Your task to perform on an android device: Go to Maps Image 0: 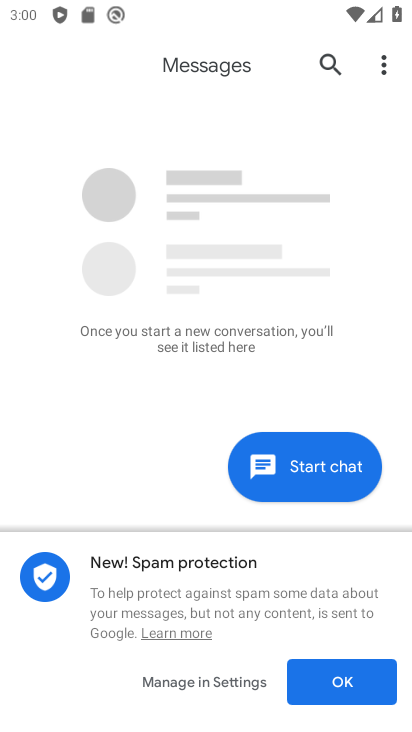
Step 0: press home button
Your task to perform on an android device: Go to Maps Image 1: 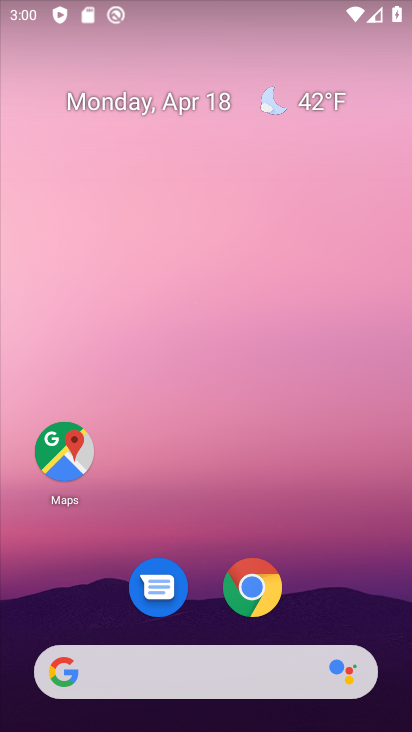
Step 1: click (76, 435)
Your task to perform on an android device: Go to Maps Image 2: 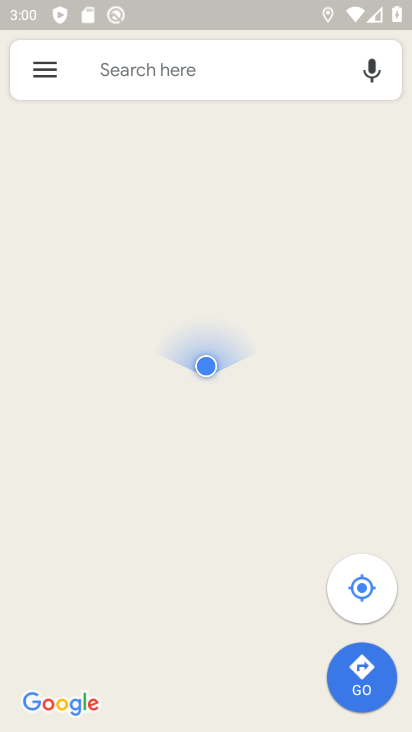
Step 2: task complete